Your task to perform on an android device: open chrome privacy settings Image 0: 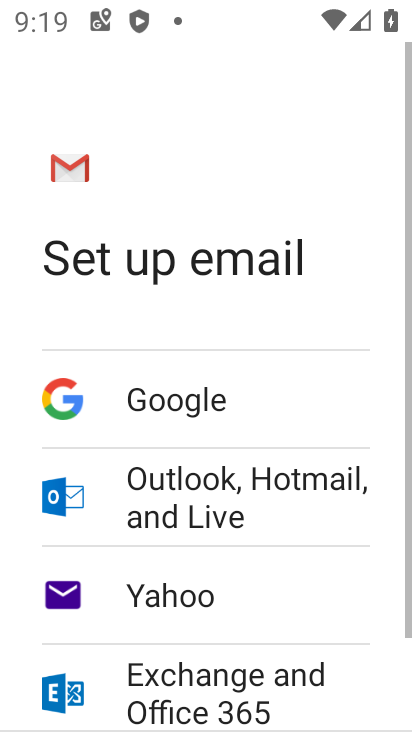
Step 0: press home button
Your task to perform on an android device: open chrome privacy settings Image 1: 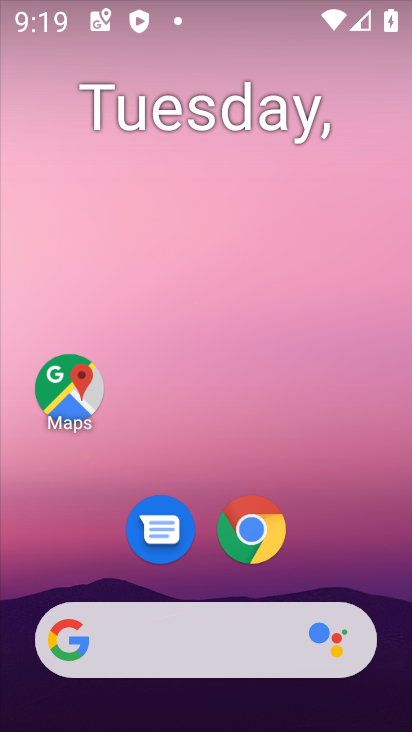
Step 1: drag from (317, 540) to (261, 10)
Your task to perform on an android device: open chrome privacy settings Image 2: 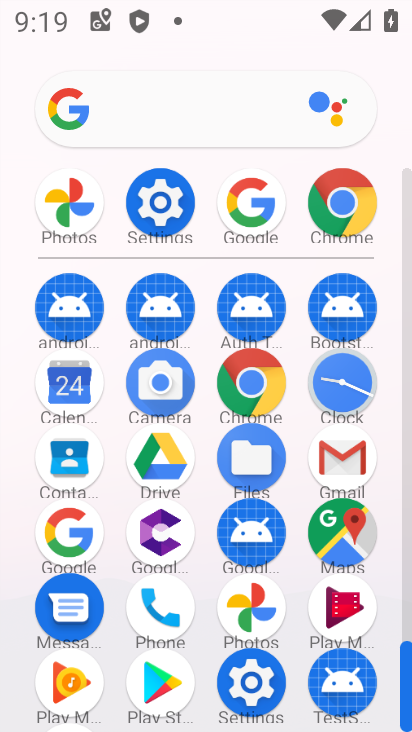
Step 2: click (178, 208)
Your task to perform on an android device: open chrome privacy settings Image 3: 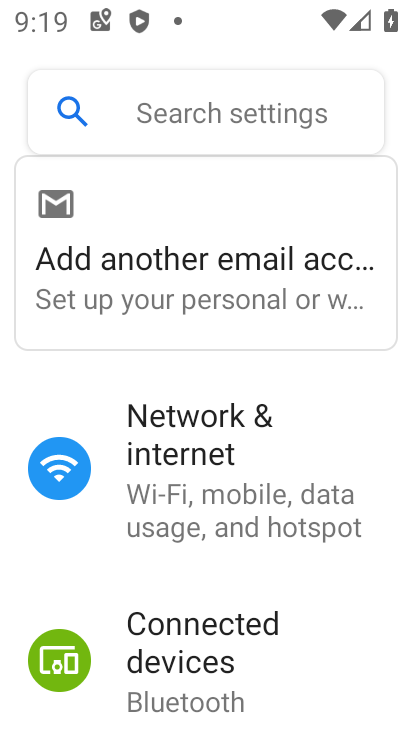
Step 3: drag from (202, 623) to (195, 485)
Your task to perform on an android device: open chrome privacy settings Image 4: 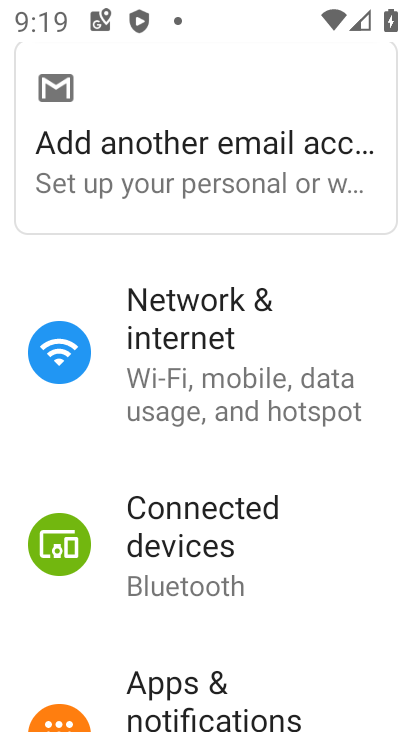
Step 4: drag from (192, 611) to (186, 325)
Your task to perform on an android device: open chrome privacy settings Image 5: 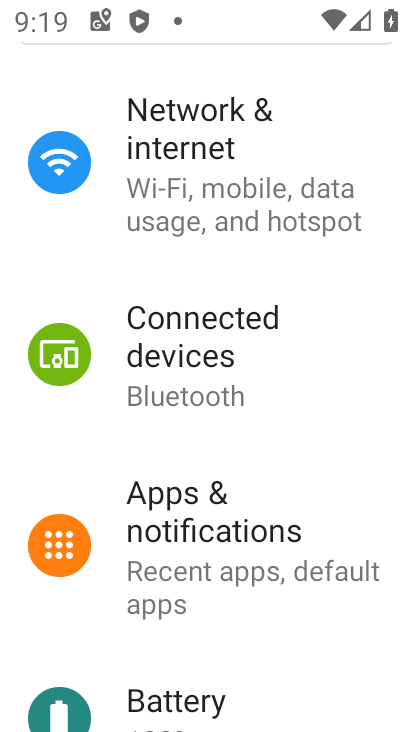
Step 5: drag from (197, 536) to (202, 368)
Your task to perform on an android device: open chrome privacy settings Image 6: 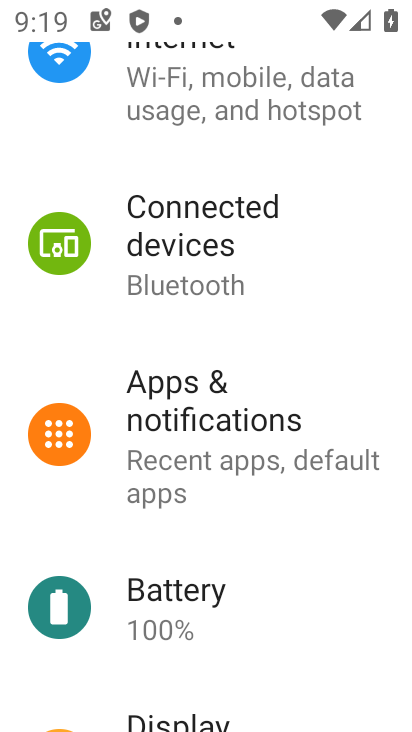
Step 6: drag from (224, 552) to (221, 223)
Your task to perform on an android device: open chrome privacy settings Image 7: 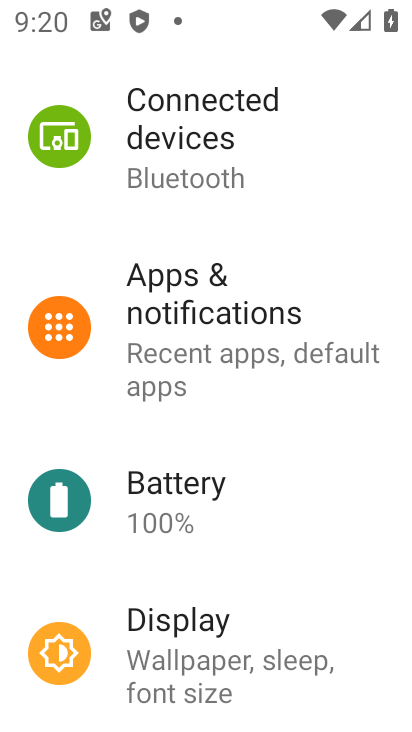
Step 7: drag from (201, 590) to (213, 448)
Your task to perform on an android device: open chrome privacy settings Image 8: 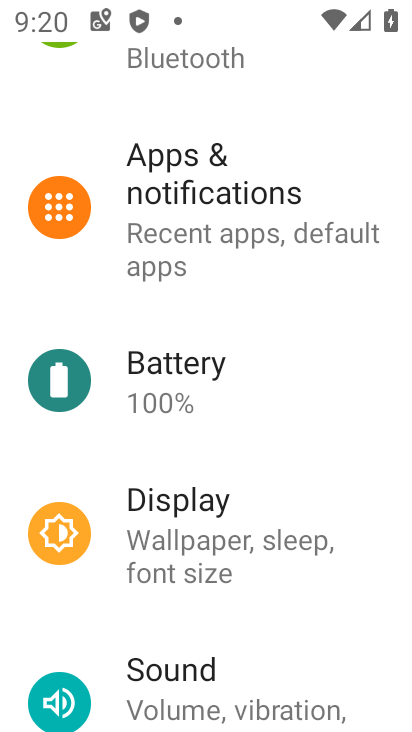
Step 8: drag from (206, 548) to (183, 393)
Your task to perform on an android device: open chrome privacy settings Image 9: 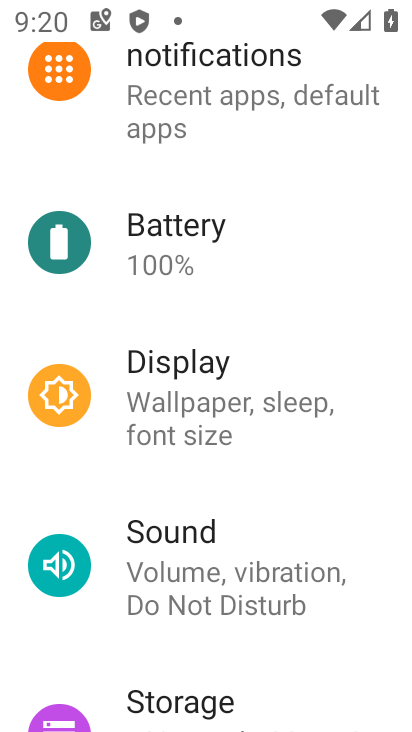
Step 9: drag from (203, 485) to (203, 284)
Your task to perform on an android device: open chrome privacy settings Image 10: 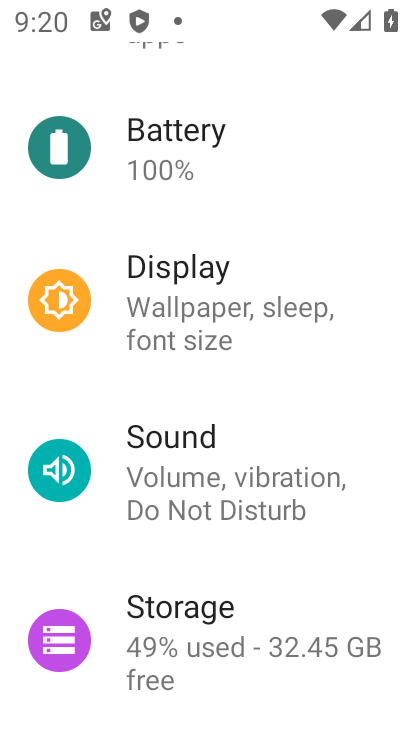
Step 10: drag from (221, 575) to (206, 241)
Your task to perform on an android device: open chrome privacy settings Image 11: 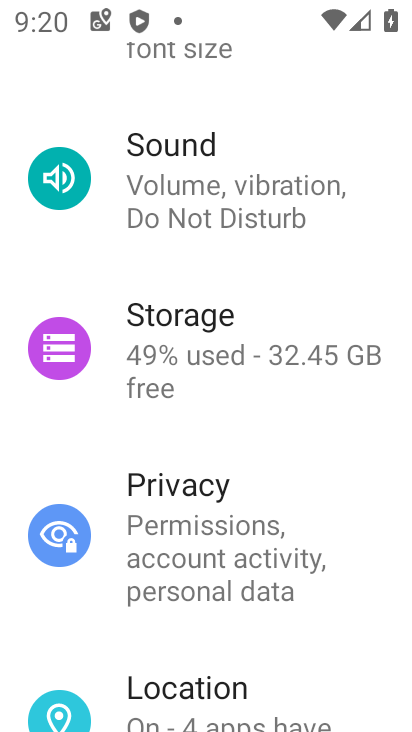
Step 11: click (225, 503)
Your task to perform on an android device: open chrome privacy settings Image 12: 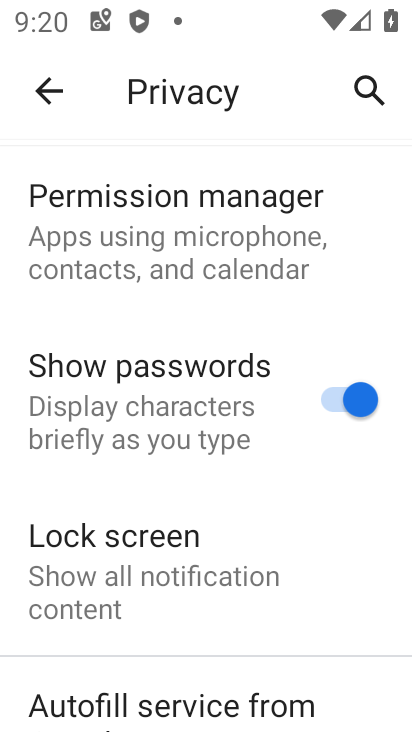
Step 12: task complete